Your task to perform on an android device: all mails in gmail Image 0: 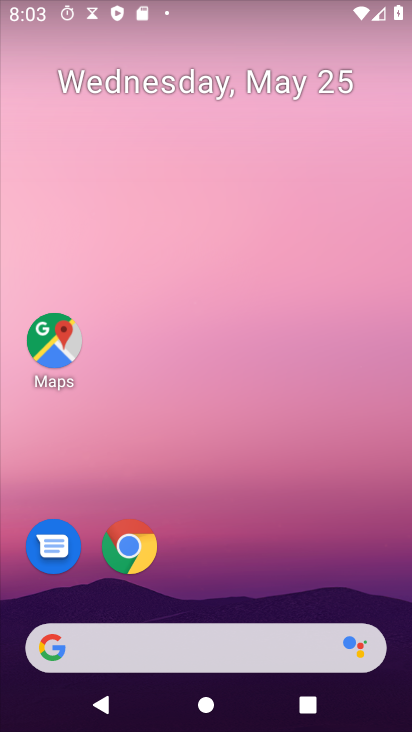
Step 0: drag from (206, 548) to (142, 123)
Your task to perform on an android device: all mails in gmail Image 1: 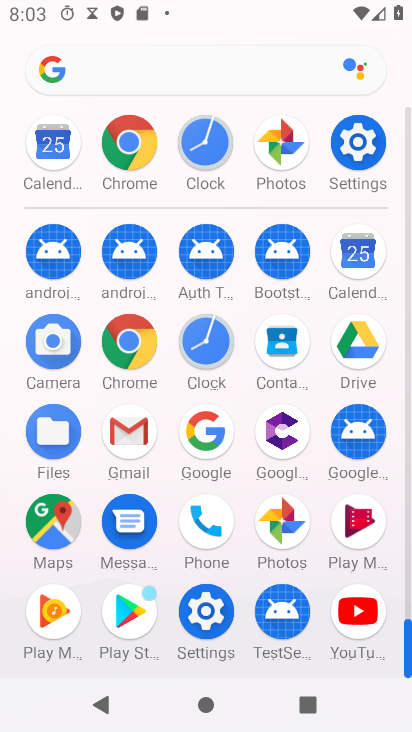
Step 1: click (226, 175)
Your task to perform on an android device: all mails in gmail Image 2: 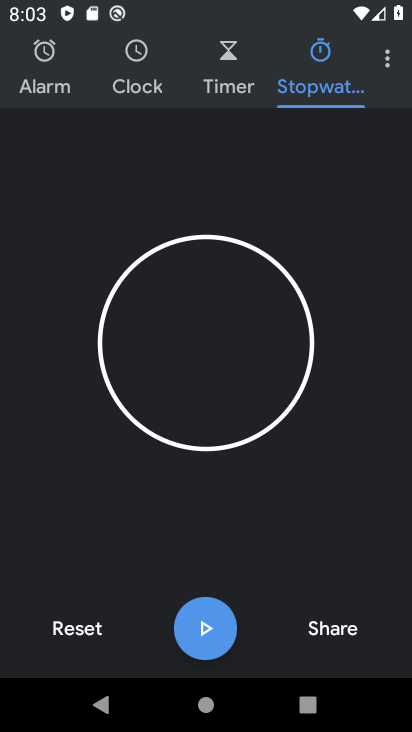
Step 2: click (46, 92)
Your task to perform on an android device: all mails in gmail Image 3: 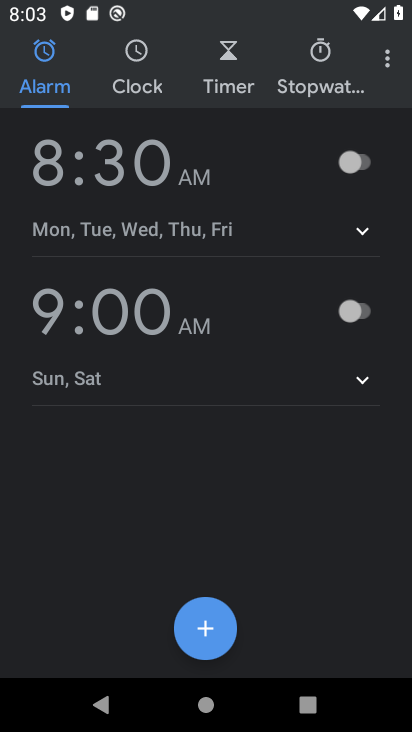
Step 3: click (354, 181)
Your task to perform on an android device: all mails in gmail Image 4: 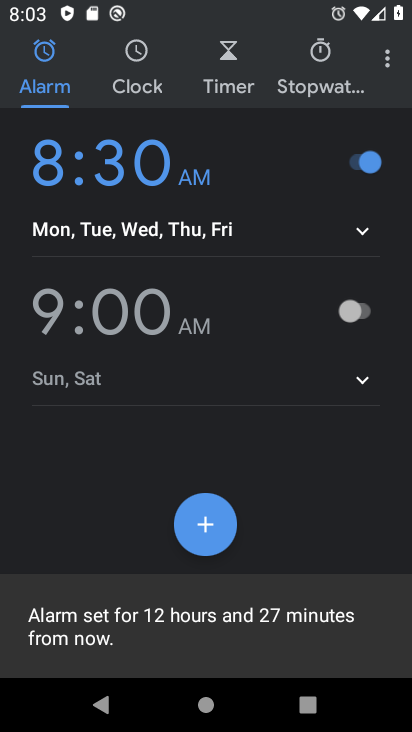
Step 4: task complete